Your task to perform on an android device: Search for "razer naga" on walmart, select the first entry, add it to the cart, then select checkout. Image 0: 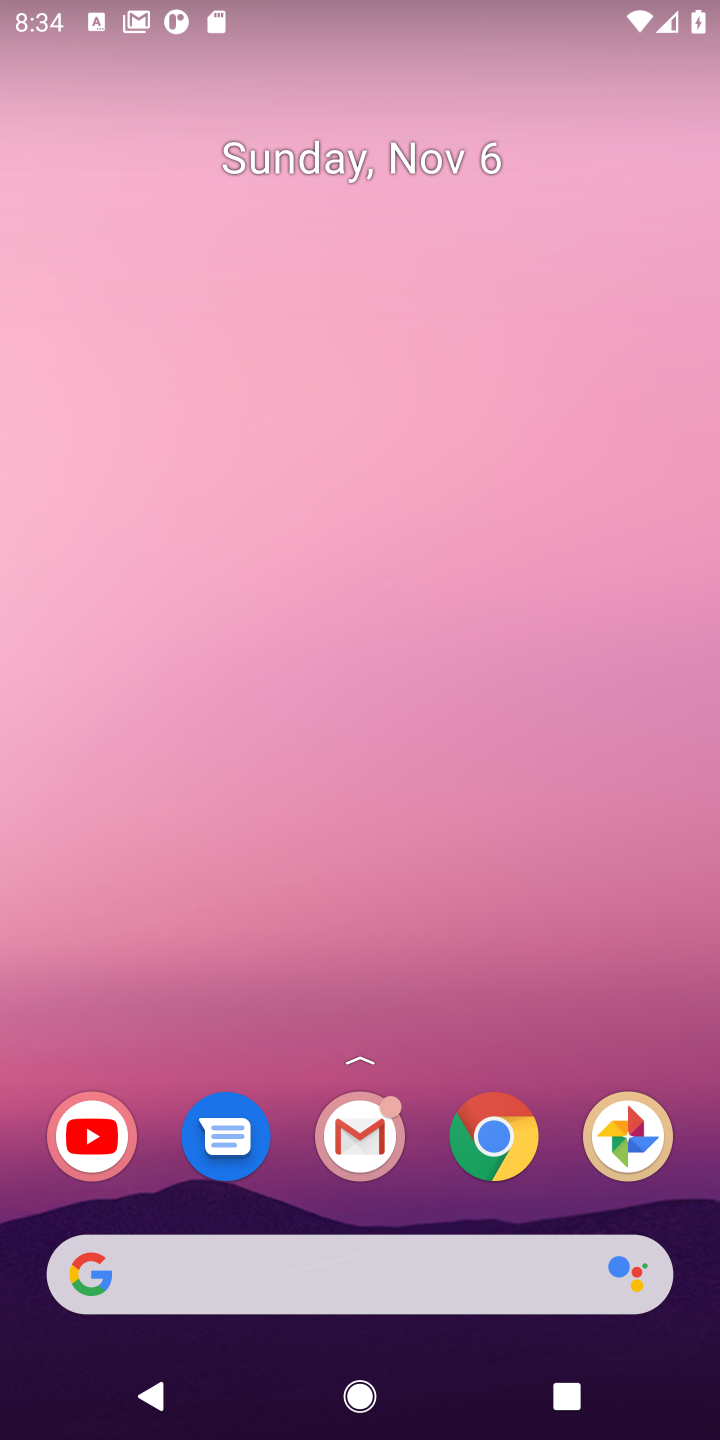
Step 0: click (298, 1275)
Your task to perform on an android device: Search for "razer naga" on walmart, select the first entry, add it to the cart, then select checkout. Image 1: 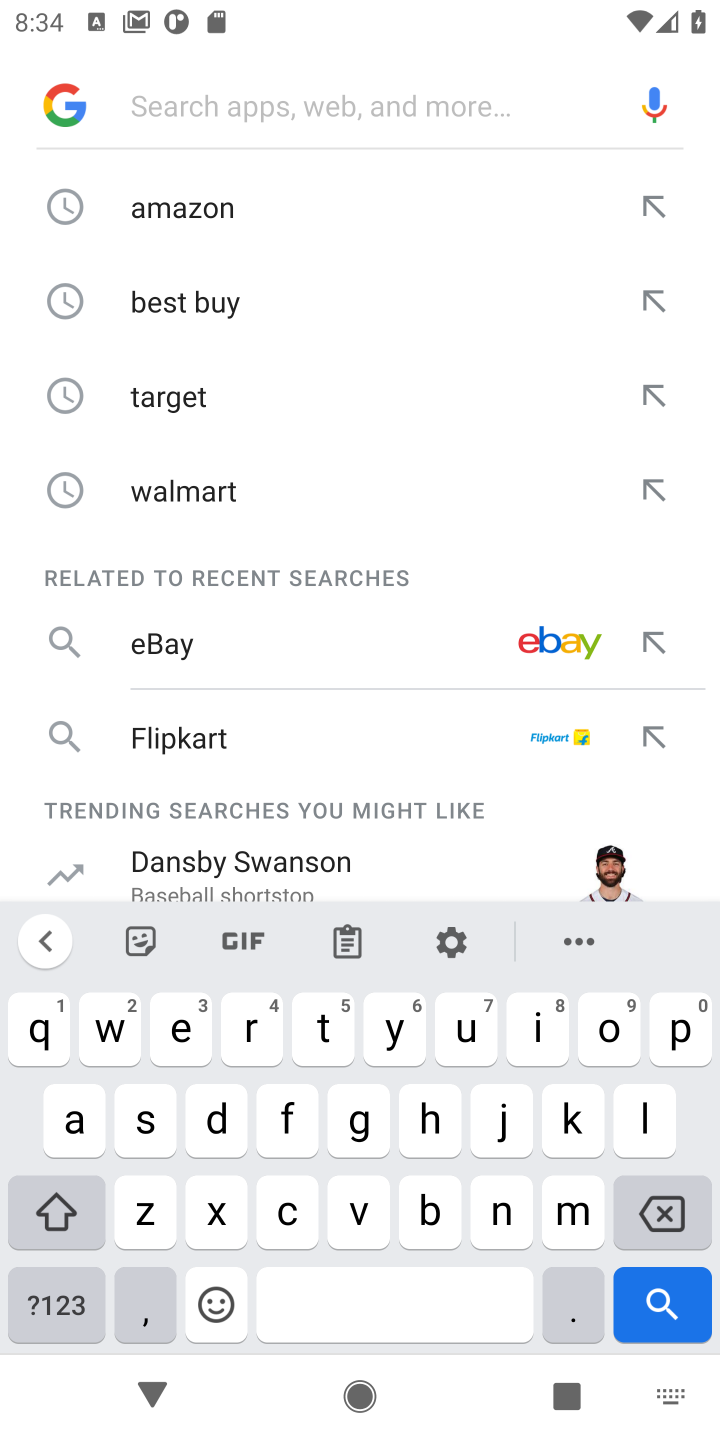
Step 1: click (255, 498)
Your task to perform on an android device: Search for "razer naga" on walmart, select the first entry, add it to the cart, then select checkout. Image 2: 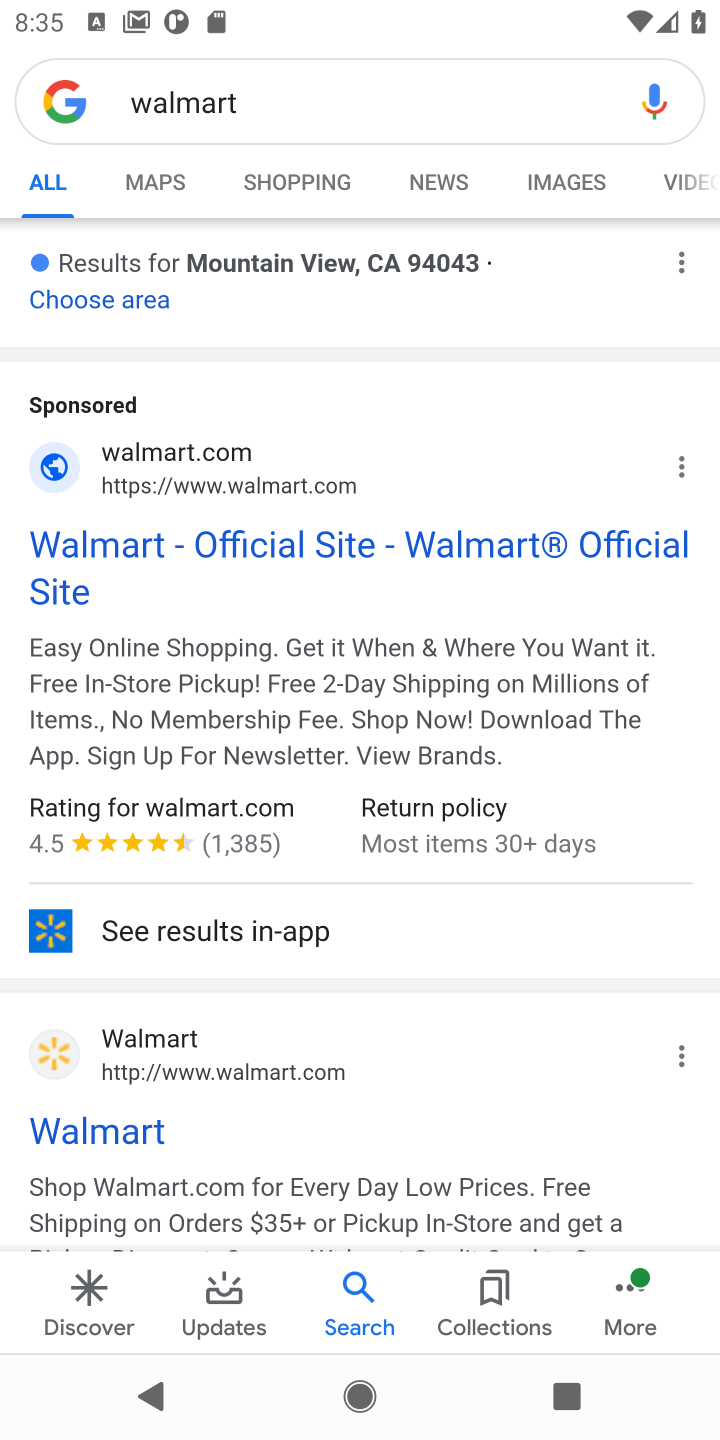
Step 2: click (337, 533)
Your task to perform on an android device: Search for "razer naga" on walmart, select the first entry, add it to the cart, then select checkout. Image 3: 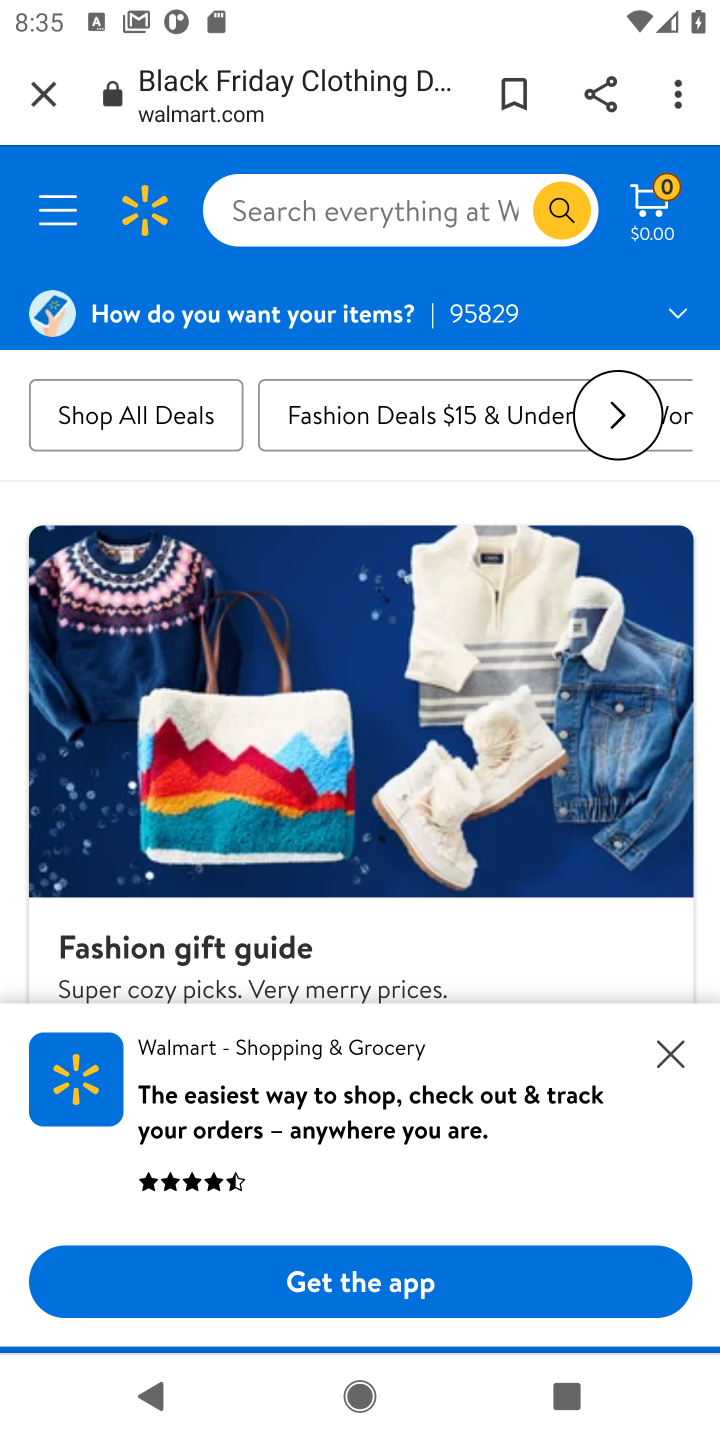
Step 3: click (666, 1082)
Your task to perform on an android device: Search for "razer naga" on walmart, select the first entry, add it to the cart, then select checkout. Image 4: 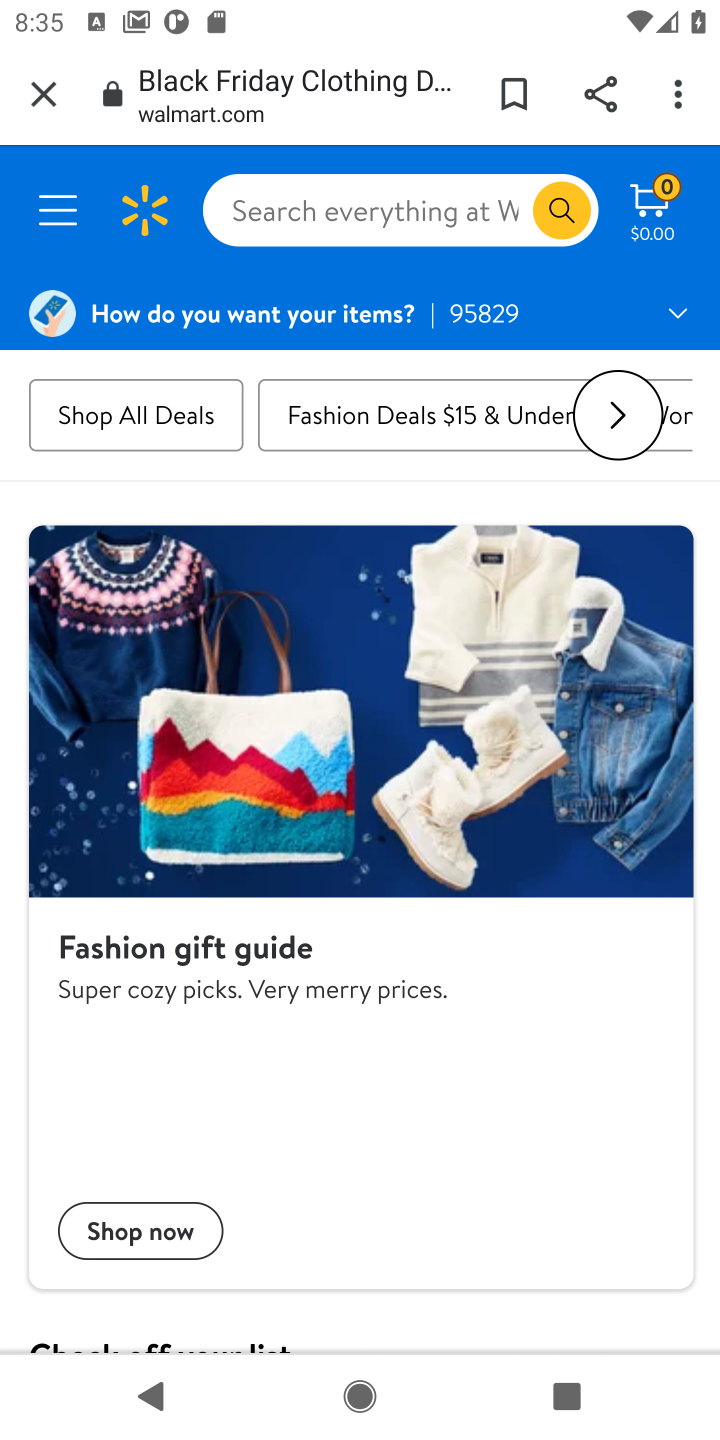
Step 4: task complete